Your task to perform on an android device: open app "Upside-Cash back on gas & food" (install if not already installed) Image 0: 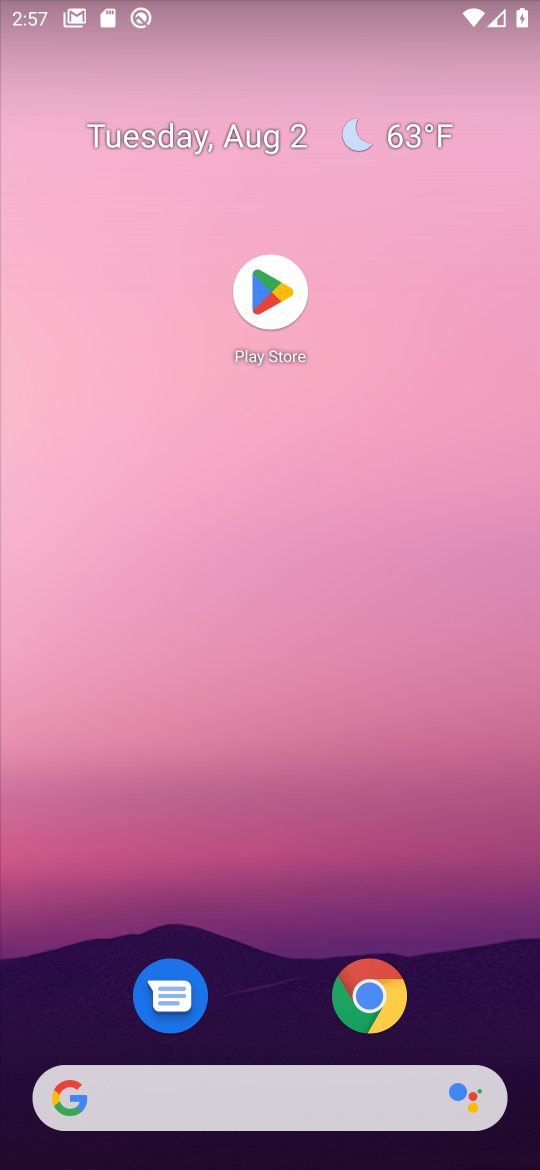
Step 0: click (259, 293)
Your task to perform on an android device: open app "Upside-Cash back on gas & food" (install if not already installed) Image 1: 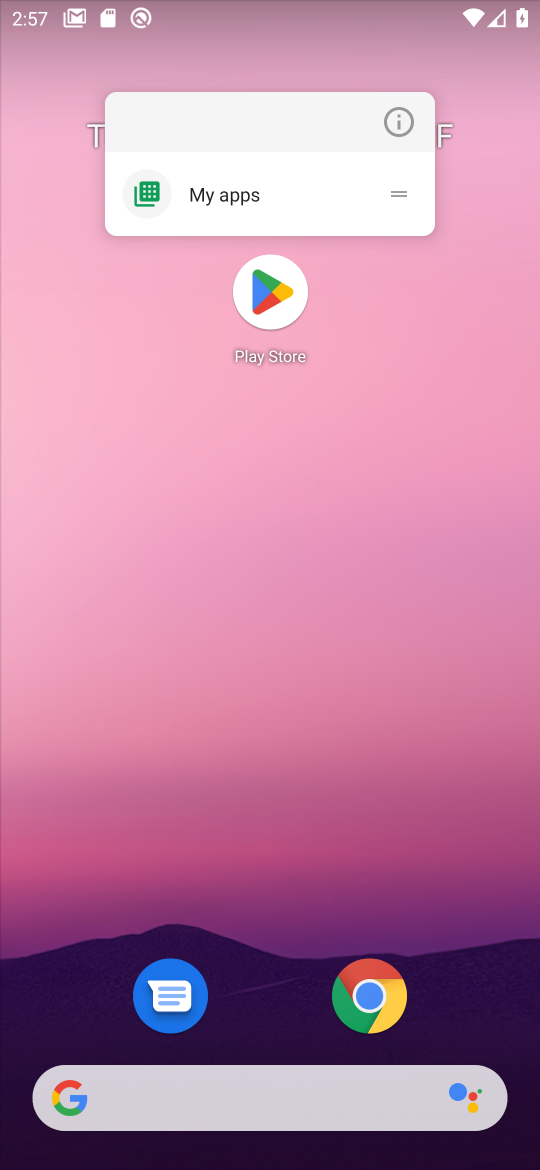
Step 1: click (259, 293)
Your task to perform on an android device: open app "Upside-Cash back on gas & food" (install if not already installed) Image 2: 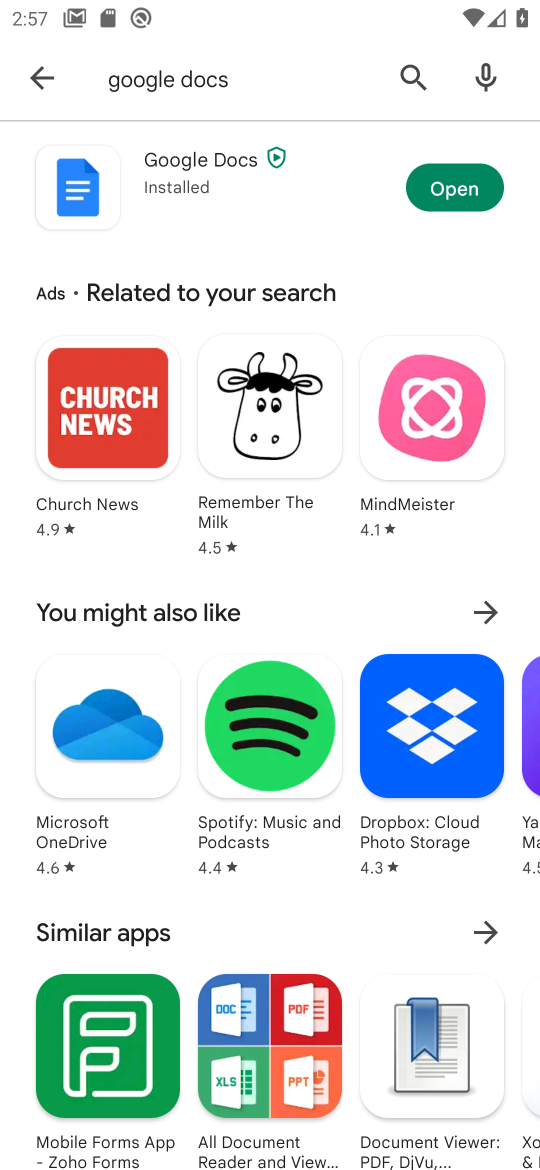
Step 2: click (350, 100)
Your task to perform on an android device: open app "Upside-Cash back on gas & food" (install if not already installed) Image 3: 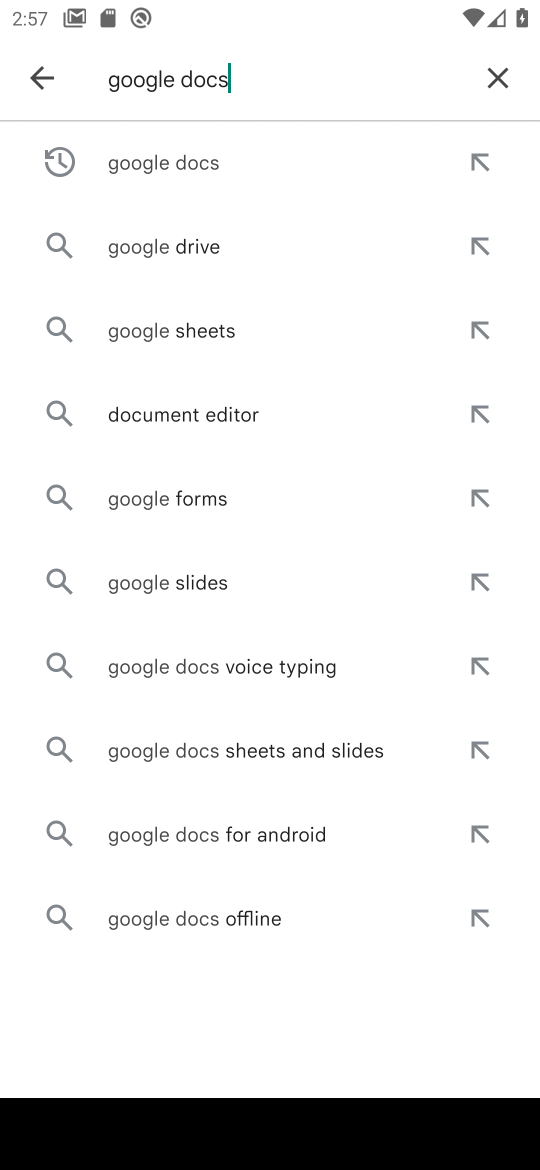
Step 3: click (492, 67)
Your task to perform on an android device: open app "Upside-Cash back on gas & food" (install if not already installed) Image 4: 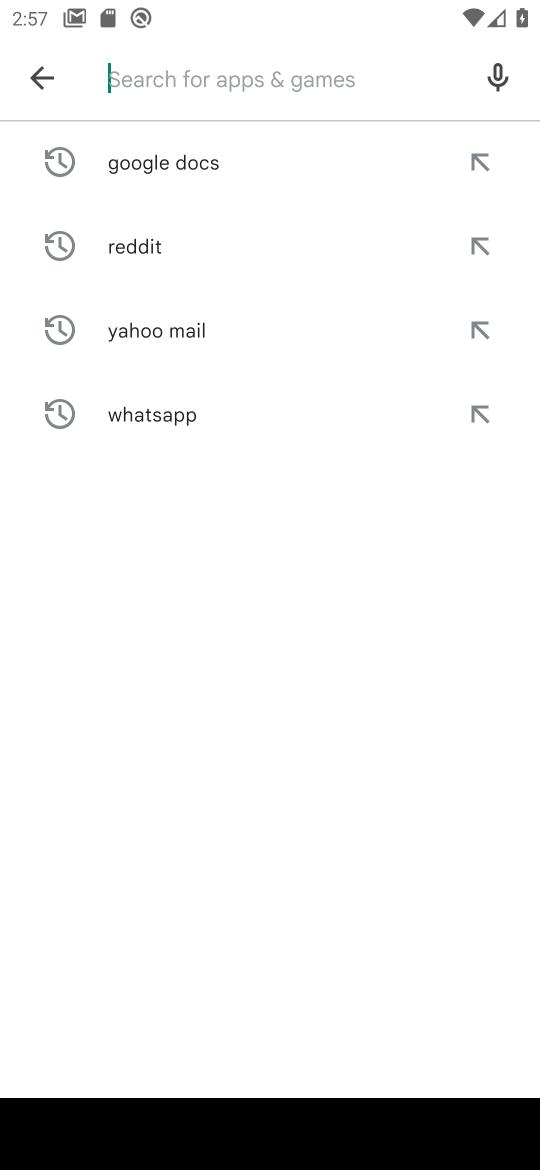
Step 4: type "upside cash back on gas and food"
Your task to perform on an android device: open app "Upside-Cash back on gas & food" (install if not already installed) Image 5: 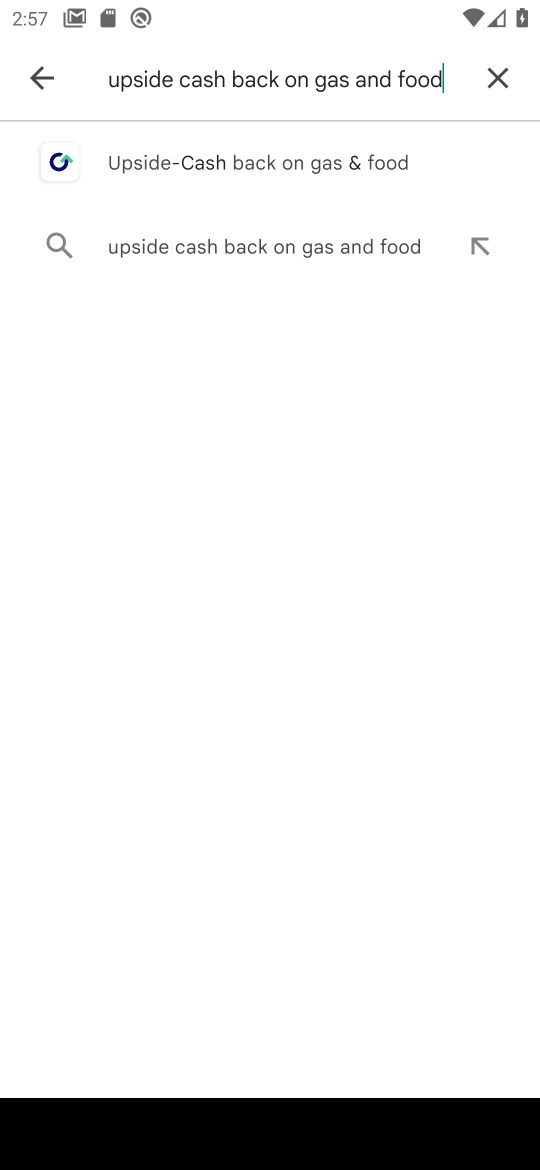
Step 5: click (143, 160)
Your task to perform on an android device: open app "Upside-Cash back on gas & food" (install if not already installed) Image 6: 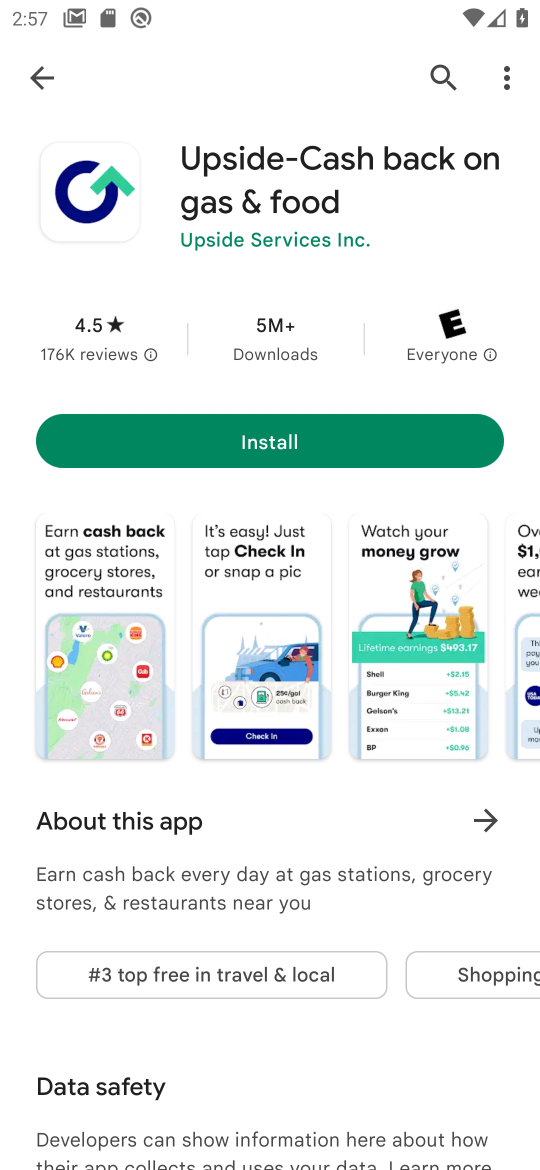
Step 6: click (313, 416)
Your task to perform on an android device: open app "Upside-Cash back on gas & food" (install if not already installed) Image 7: 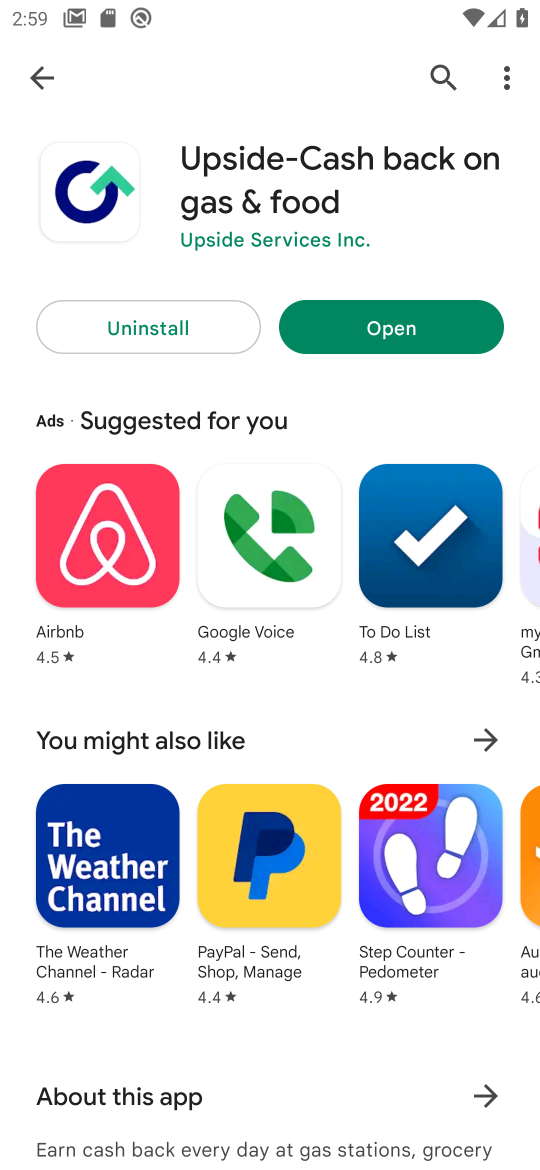
Step 7: click (416, 315)
Your task to perform on an android device: open app "Upside-Cash back on gas & food" (install if not already installed) Image 8: 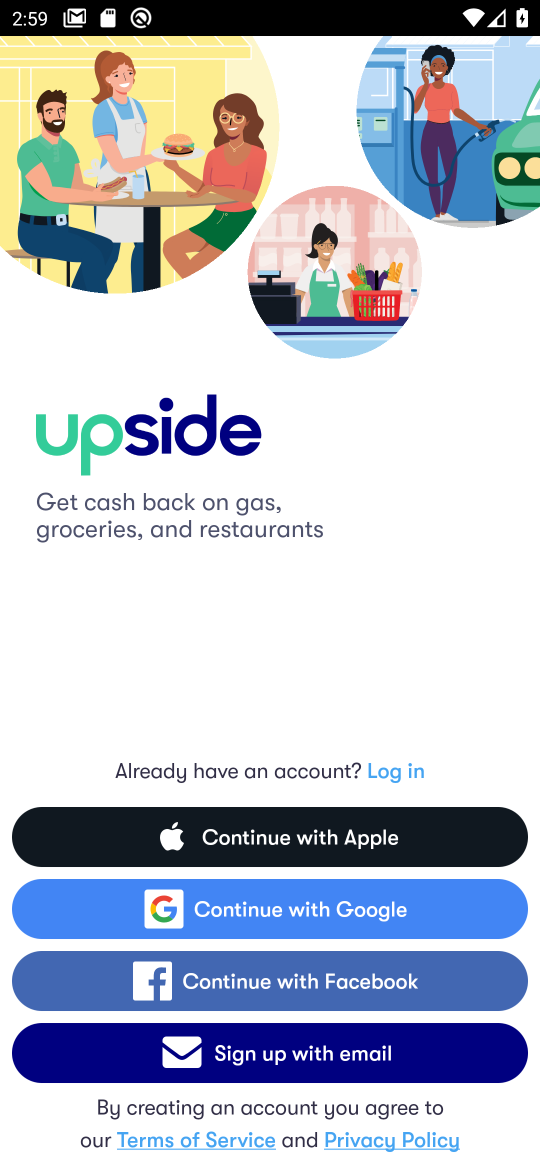
Step 8: task complete